Your task to perform on an android device: check google app version Image 0: 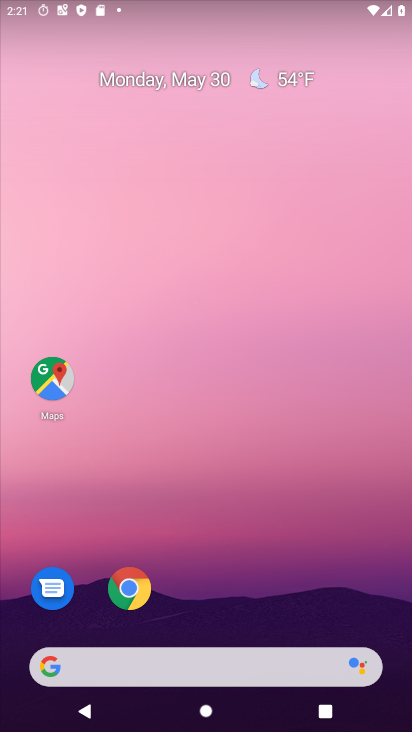
Step 0: drag from (245, 609) to (204, 31)
Your task to perform on an android device: check google app version Image 1: 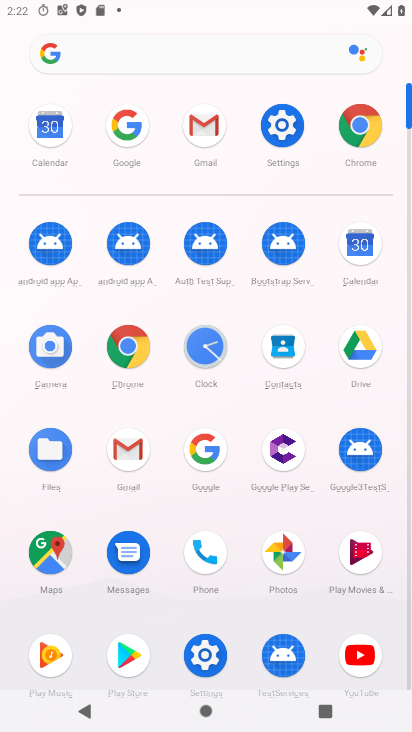
Step 1: click (196, 446)
Your task to perform on an android device: check google app version Image 2: 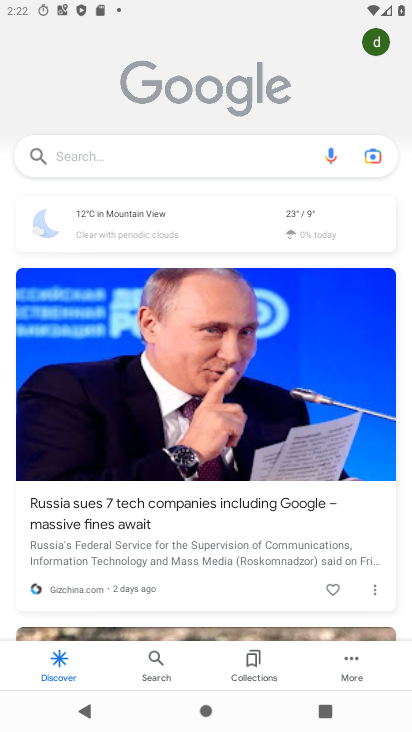
Step 2: click (355, 676)
Your task to perform on an android device: check google app version Image 3: 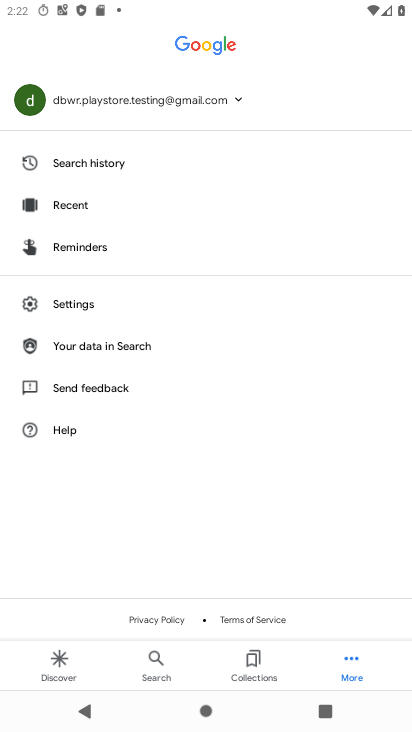
Step 3: click (70, 307)
Your task to perform on an android device: check google app version Image 4: 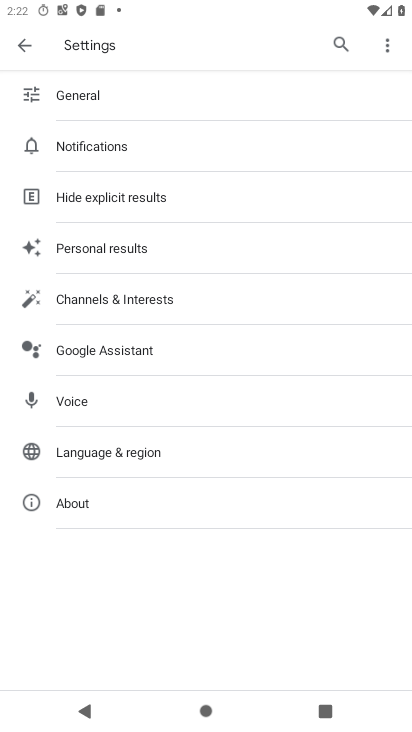
Step 4: click (85, 515)
Your task to perform on an android device: check google app version Image 5: 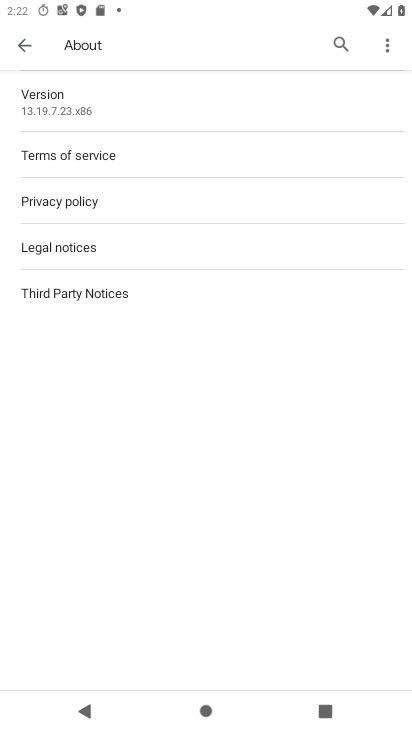
Step 5: task complete